Your task to perform on an android device: Go to ESPN.com Image 0: 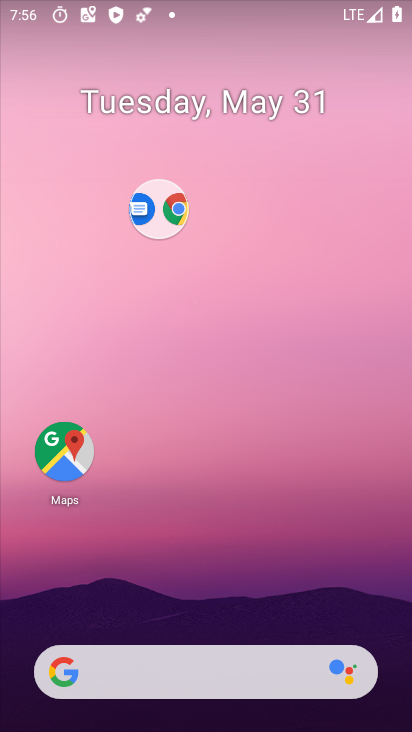
Step 0: drag from (189, 594) to (125, 190)
Your task to perform on an android device: Go to ESPN.com Image 1: 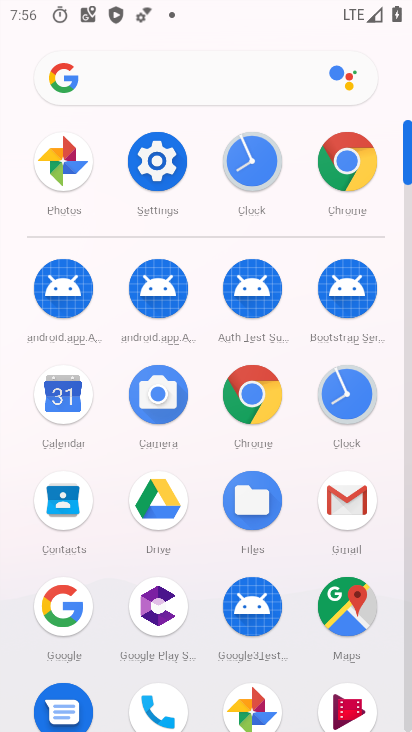
Step 1: click (350, 207)
Your task to perform on an android device: Go to ESPN.com Image 2: 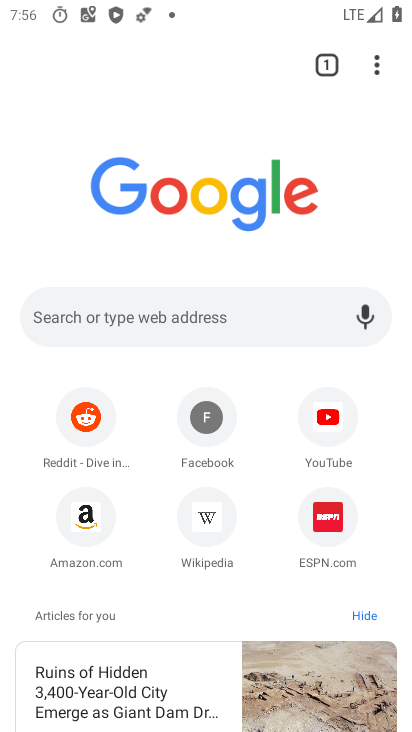
Step 2: click (338, 527)
Your task to perform on an android device: Go to ESPN.com Image 3: 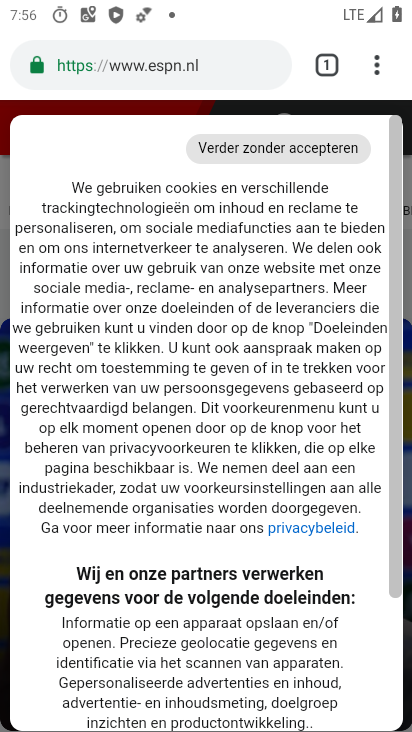
Step 3: task complete